Your task to perform on an android device: Show me recent news Image 0: 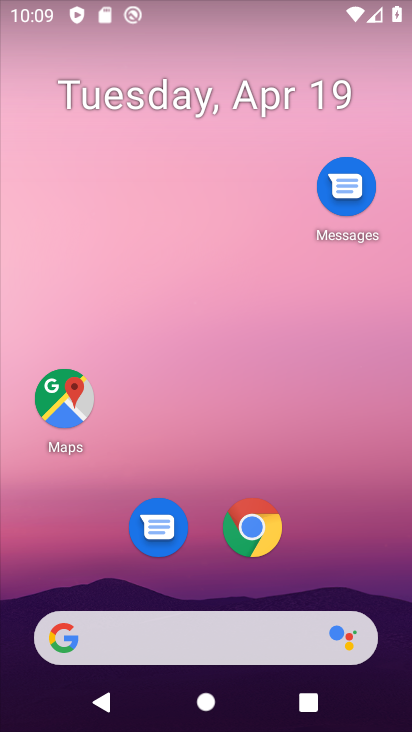
Step 0: drag from (323, 537) to (287, 131)
Your task to perform on an android device: Show me recent news Image 1: 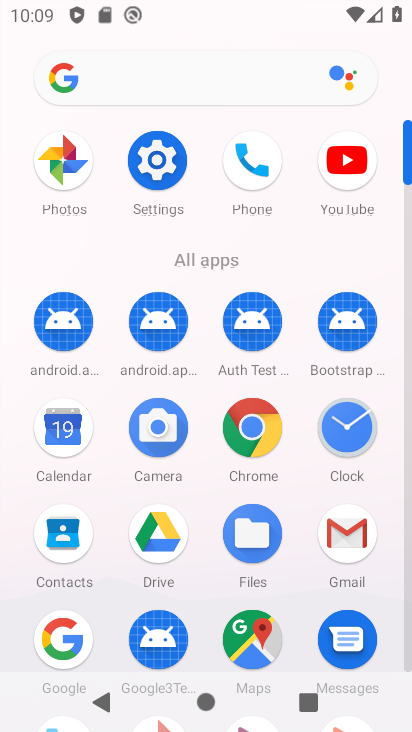
Step 1: click (155, 79)
Your task to perform on an android device: Show me recent news Image 2: 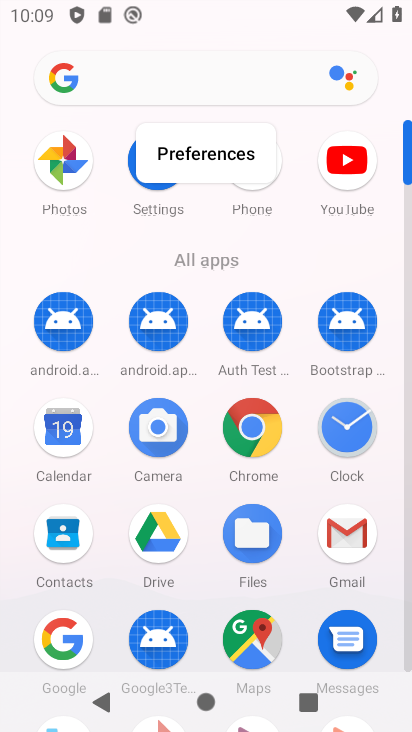
Step 2: click (228, 423)
Your task to perform on an android device: Show me recent news Image 3: 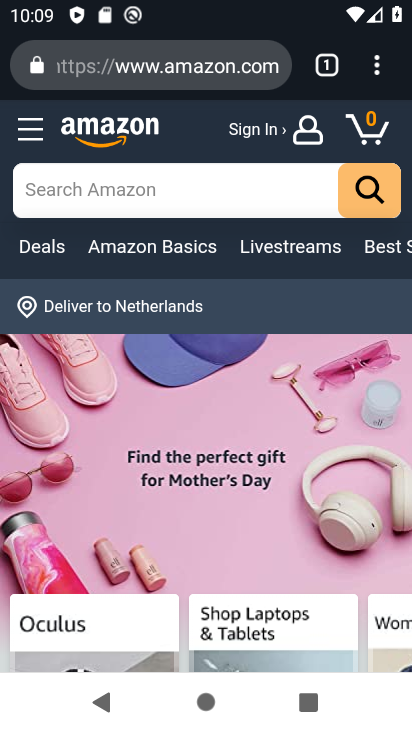
Step 3: click (200, 68)
Your task to perform on an android device: Show me recent news Image 4: 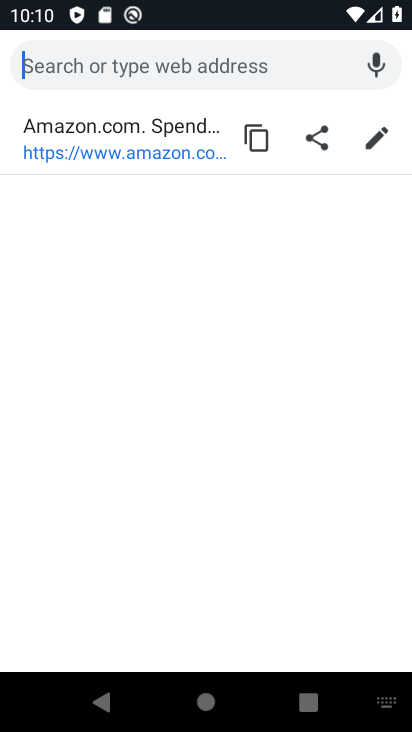
Step 4: type "recent news"
Your task to perform on an android device: Show me recent news Image 5: 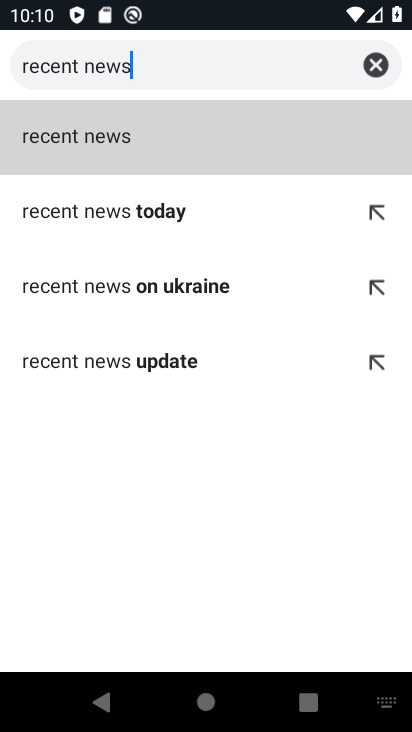
Step 5: click (108, 154)
Your task to perform on an android device: Show me recent news Image 6: 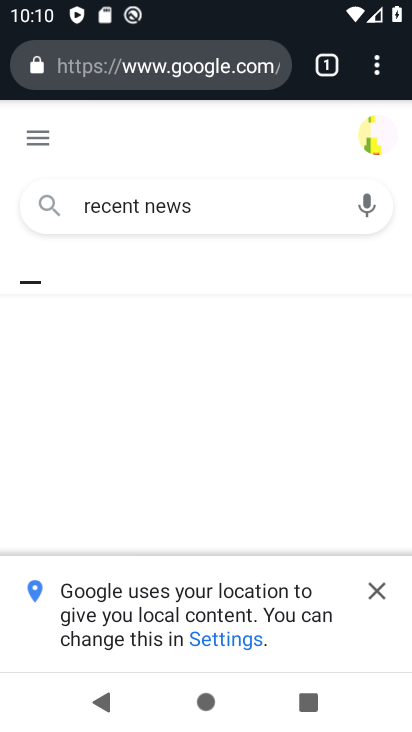
Step 6: click (375, 593)
Your task to perform on an android device: Show me recent news Image 7: 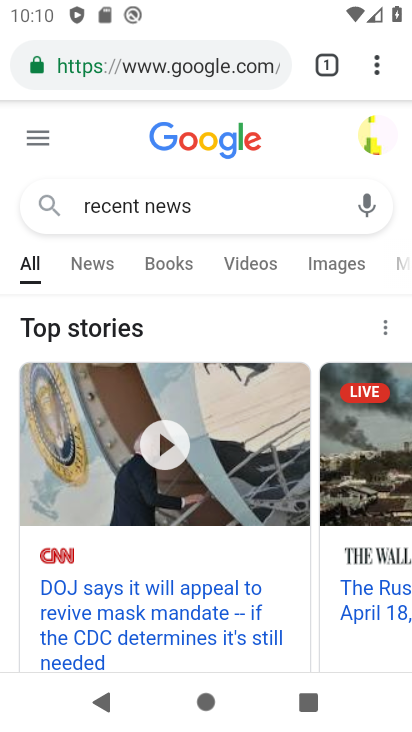
Step 7: task complete